Your task to perform on an android device: Play the last video I watched on Youtube Image 0: 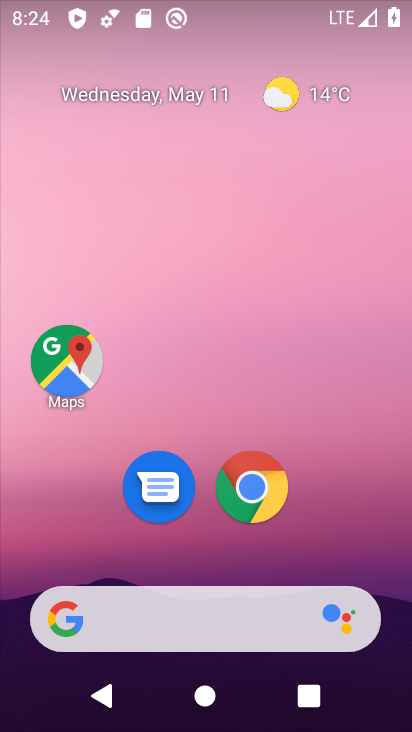
Step 0: drag from (321, 556) to (286, 266)
Your task to perform on an android device: Play the last video I watched on Youtube Image 1: 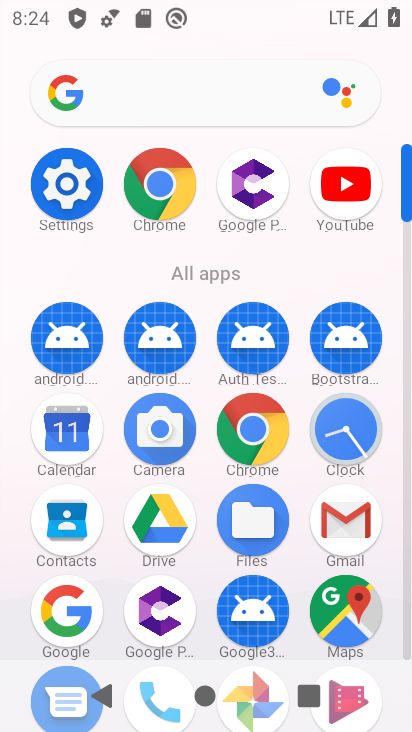
Step 1: click (352, 201)
Your task to perform on an android device: Play the last video I watched on Youtube Image 2: 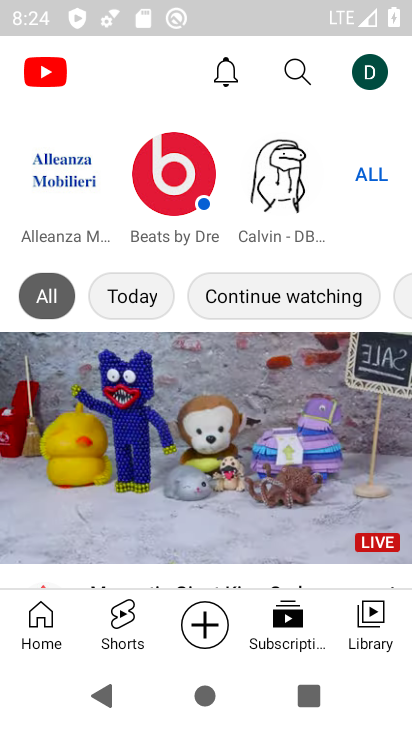
Step 2: click (385, 631)
Your task to perform on an android device: Play the last video I watched on Youtube Image 3: 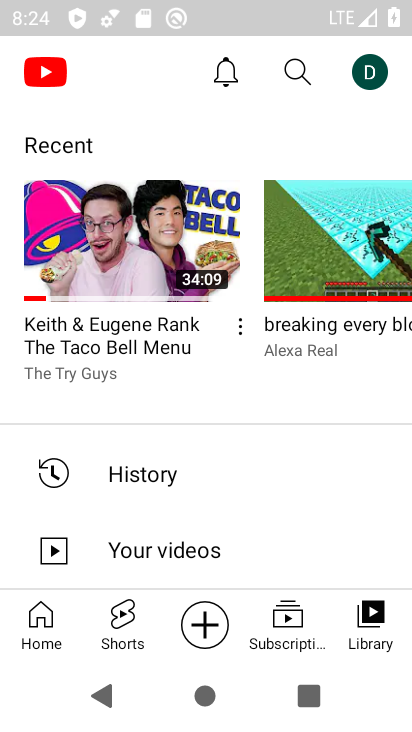
Step 3: click (134, 277)
Your task to perform on an android device: Play the last video I watched on Youtube Image 4: 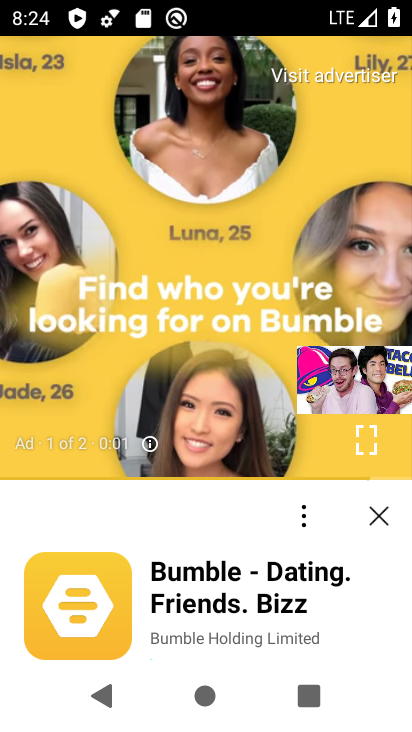
Step 4: task complete